Your task to perform on an android device: Go to sound settings Image 0: 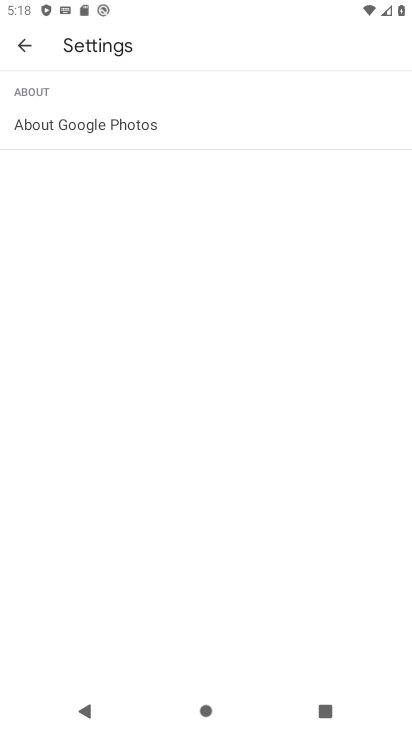
Step 0: press home button
Your task to perform on an android device: Go to sound settings Image 1: 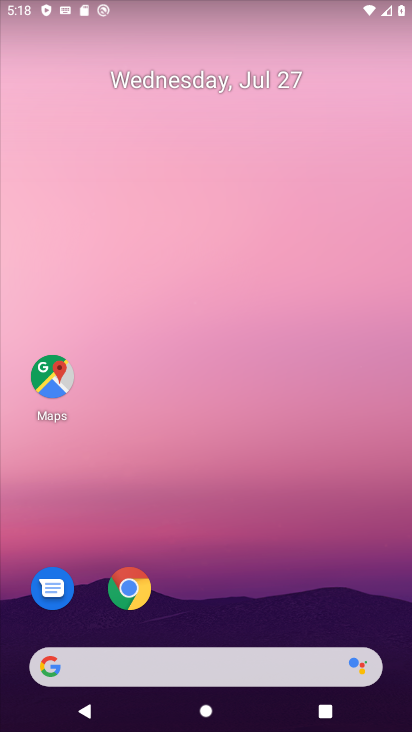
Step 1: drag from (305, 653) to (397, 91)
Your task to perform on an android device: Go to sound settings Image 2: 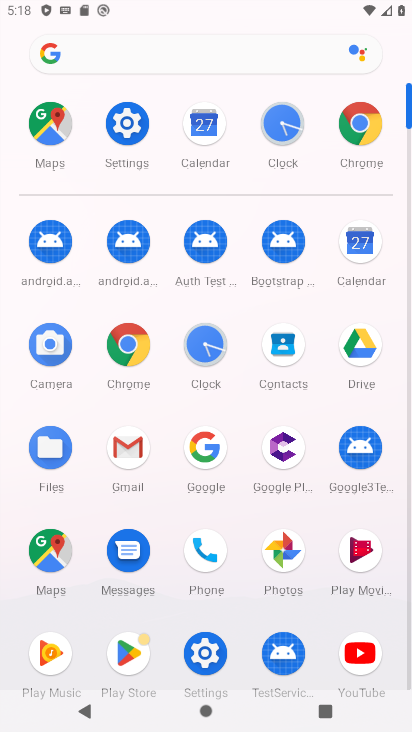
Step 2: click (120, 120)
Your task to perform on an android device: Go to sound settings Image 3: 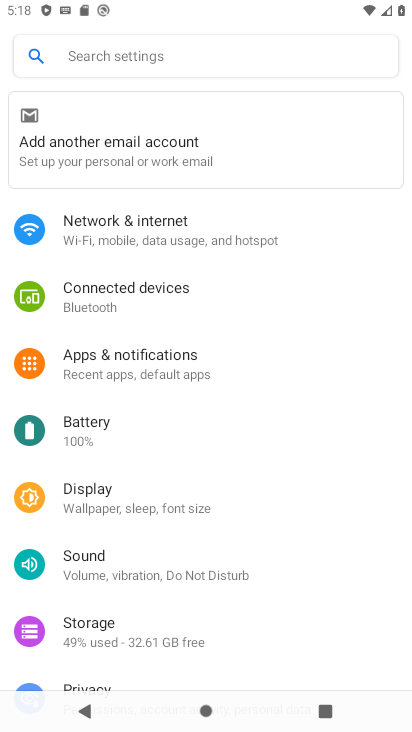
Step 3: click (121, 573)
Your task to perform on an android device: Go to sound settings Image 4: 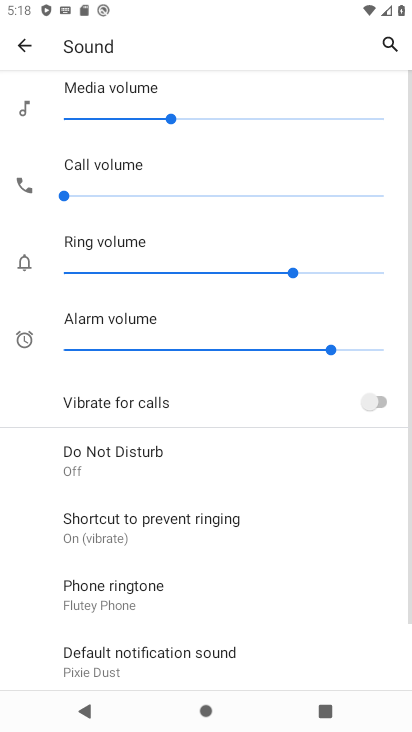
Step 4: task complete